Your task to perform on an android device: turn on javascript in the chrome app Image 0: 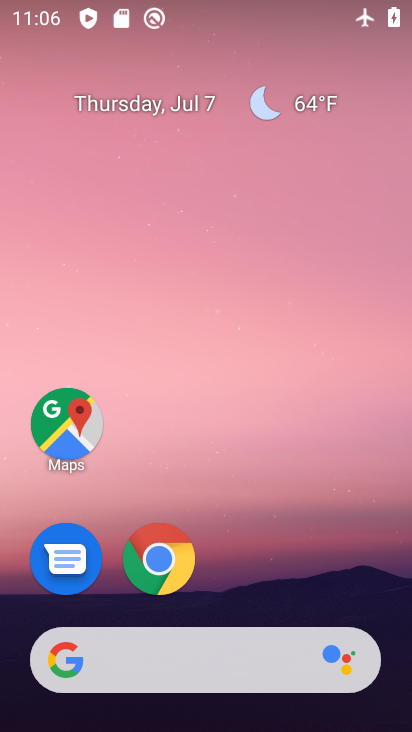
Step 0: click (165, 574)
Your task to perform on an android device: turn on javascript in the chrome app Image 1: 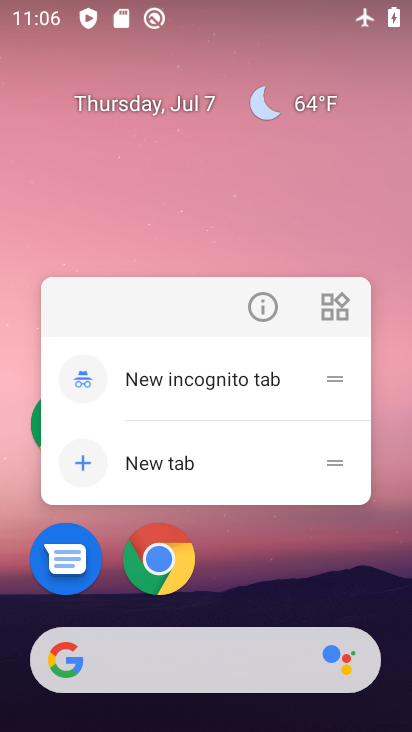
Step 1: click (165, 560)
Your task to perform on an android device: turn on javascript in the chrome app Image 2: 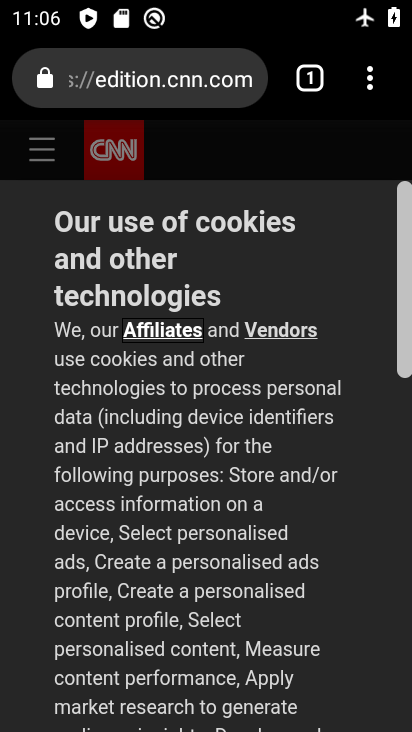
Step 2: click (371, 71)
Your task to perform on an android device: turn on javascript in the chrome app Image 3: 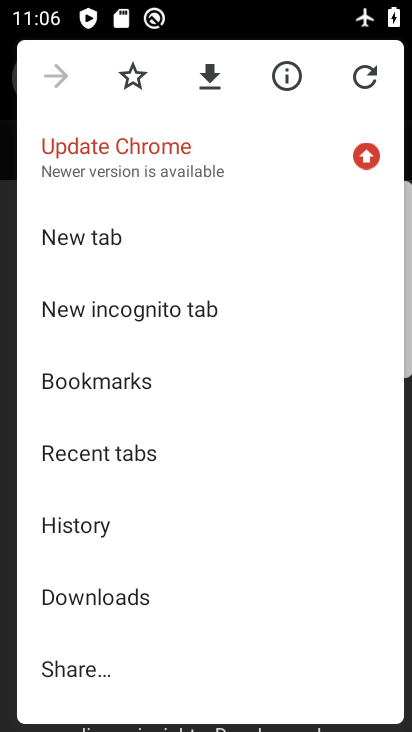
Step 3: drag from (98, 653) to (160, 273)
Your task to perform on an android device: turn on javascript in the chrome app Image 4: 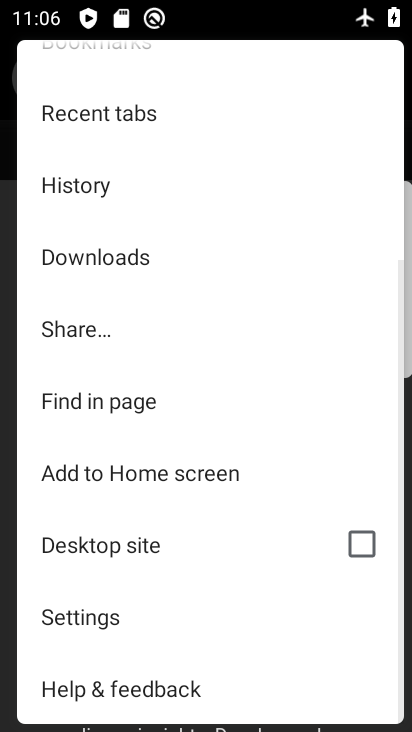
Step 4: click (91, 621)
Your task to perform on an android device: turn on javascript in the chrome app Image 5: 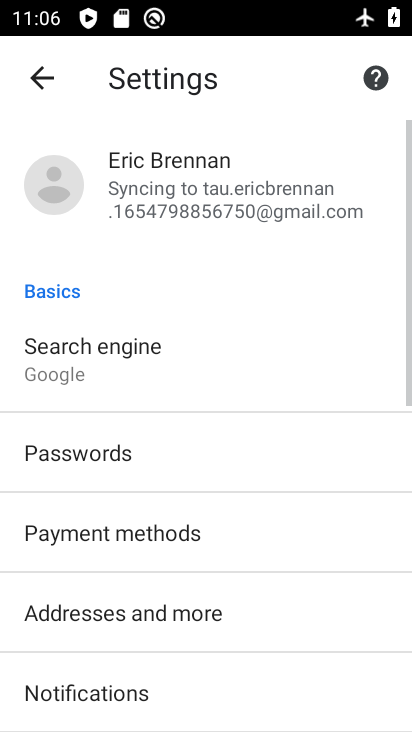
Step 5: drag from (96, 702) to (119, 321)
Your task to perform on an android device: turn on javascript in the chrome app Image 6: 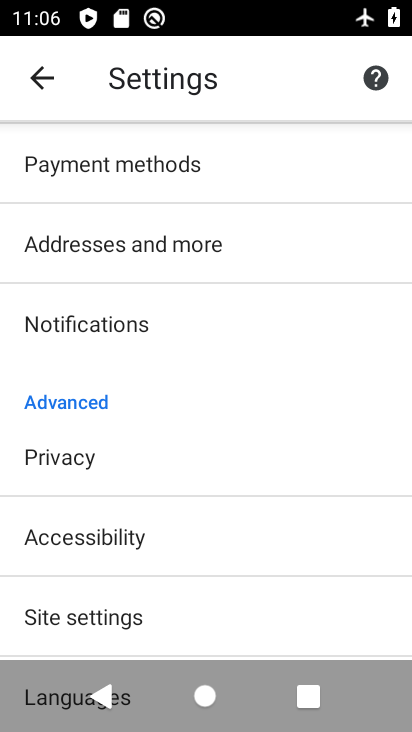
Step 6: drag from (64, 623) to (86, 305)
Your task to perform on an android device: turn on javascript in the chrome app Image 7: 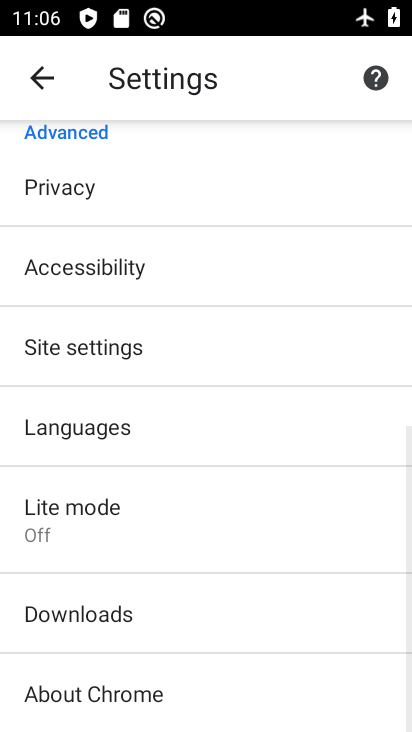
Step 7: click (63, 357)
Your task to perform on an android device: turn on javascript in the chrome app Image 8: 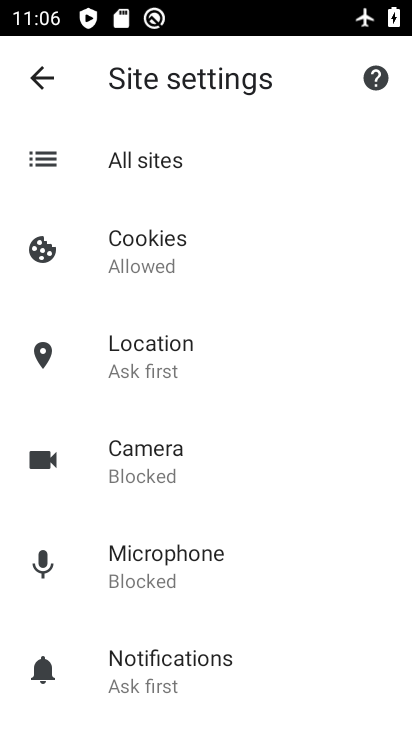
Step 8: drag from (136, 704) to (178, 352)
Your task to perform on an android device: turn on javascript in the chrome app Image 9: 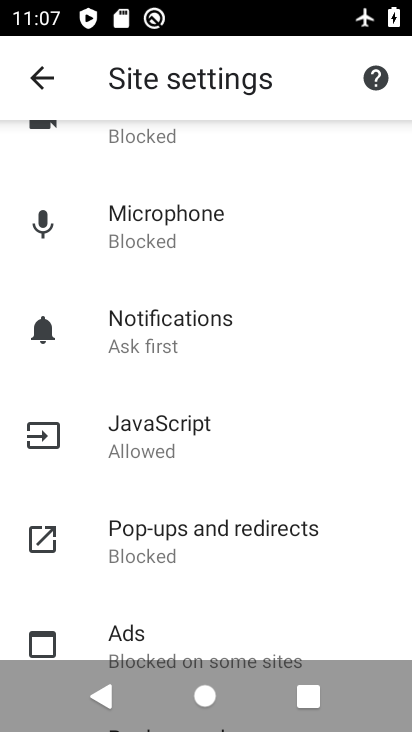
Step 9: drag from (140, 600) to (200, 276)
Your task to perform on an android device: turn on javascript in the chrome app Image 10: 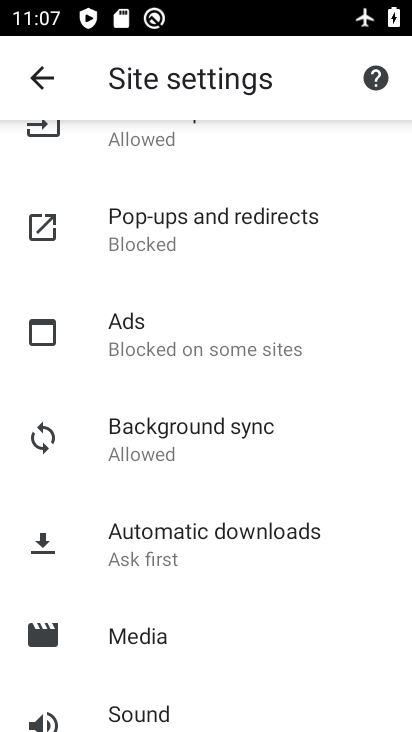
Step 10: drag from (193, 225) to (195, 593)
Your task to perform on an android device: turn on javascript in the chrome app Image 11: 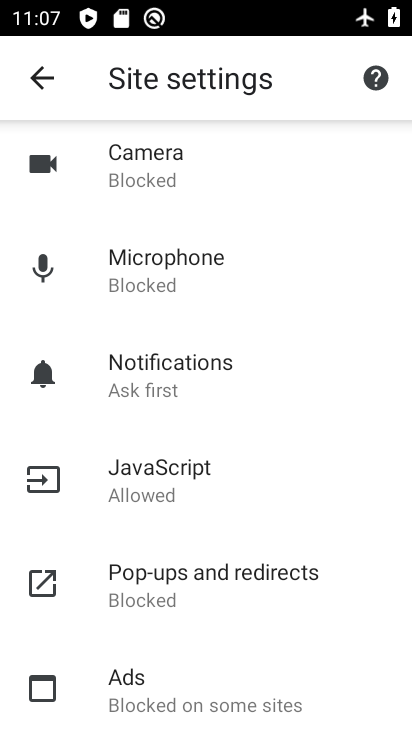
Step 11: click (157, 477)
Your task to perform on an android device: turn on javascript in the chrome app Image 12: 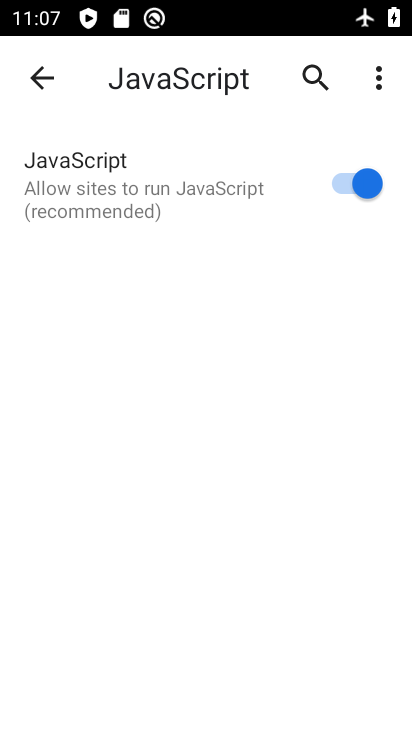
Step 12: task complete